Your task to perform on an android device: Go to CNN.com Image 0: 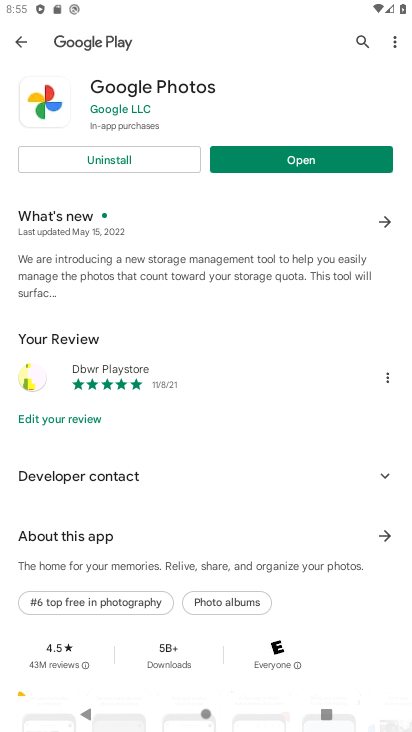
Step 0: press home button
Your task to perform on an android device: Go to CNN.com Image 1: 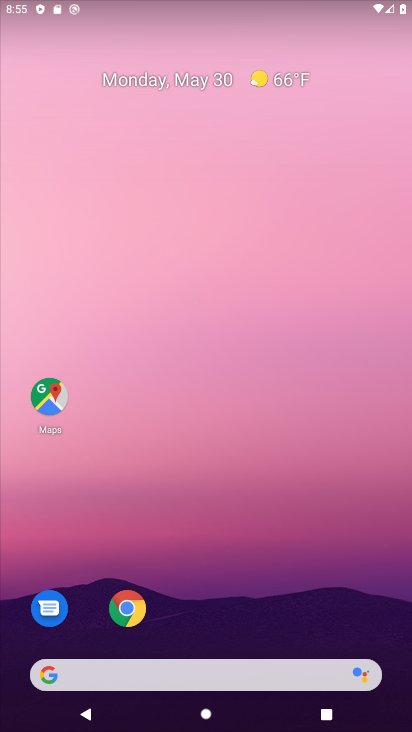
Step 1: click (123, 613)
Your task to perform on an android device: Go to CNN.com Image 2: 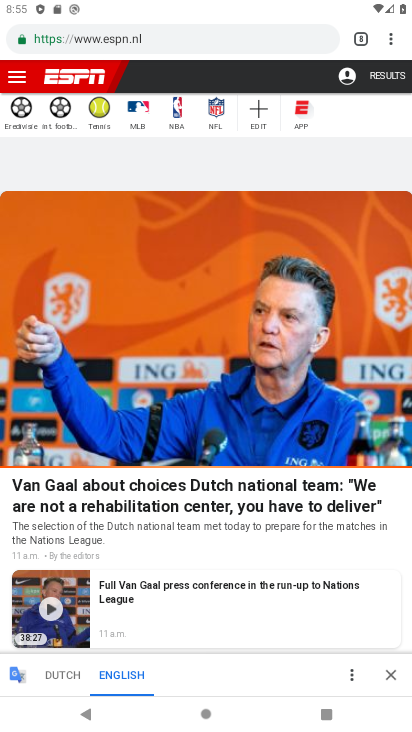
Step 2: click (392, 42)
Your task to perform on an android device: Go to CNN.com Image 3: 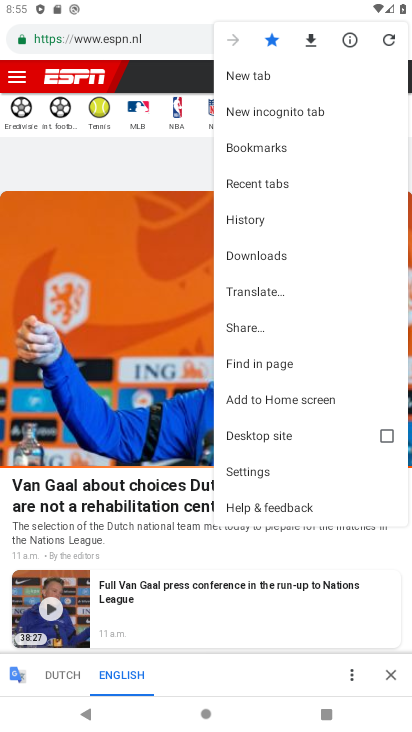
Step 3: click (255, 73)
Your task to perform on an android device: Go to CNN.com Image 4: 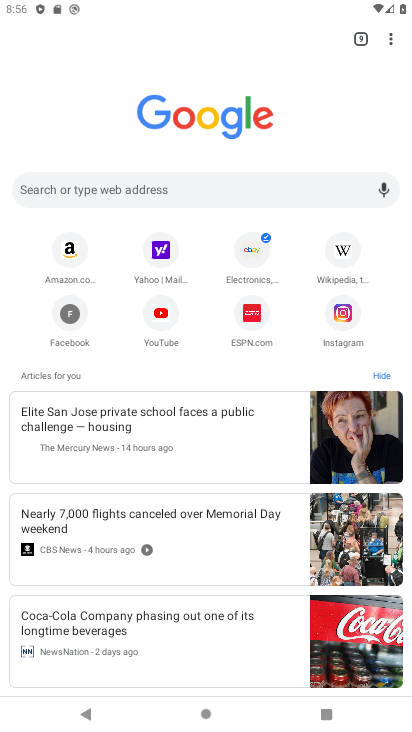
Step 4: click (206, 184)
Your task to perform on an android device: Go to CNN.com Image 5: 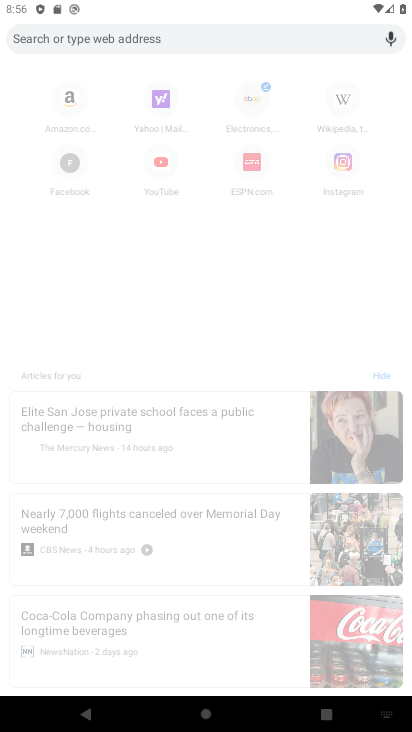
Step 5: type "CNN.com"
Your task to perform on an android device: Go to CNN.com Image 6: 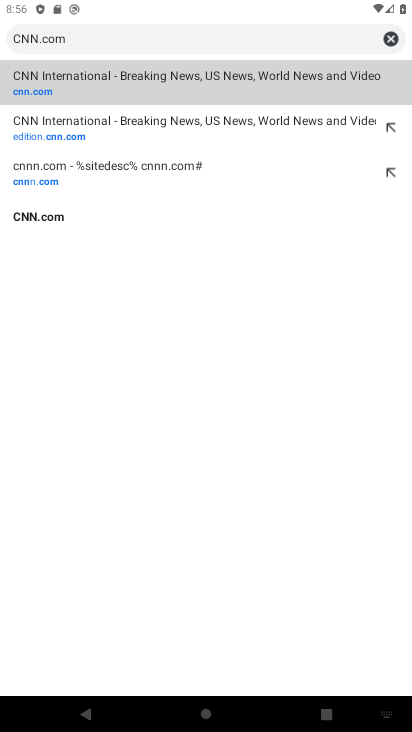
Step 6: type ""
Your task to perform on an android device: Go to CNN.com Image 7: 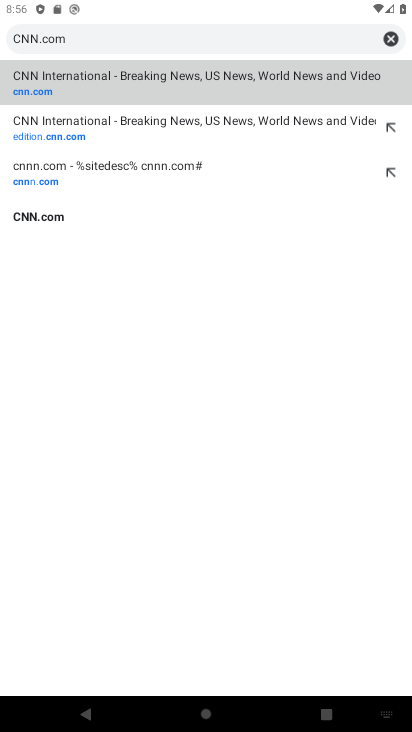
Step 7: click (33, 91)
Your task to perform on an android device: Go to CNN.com Image 8: 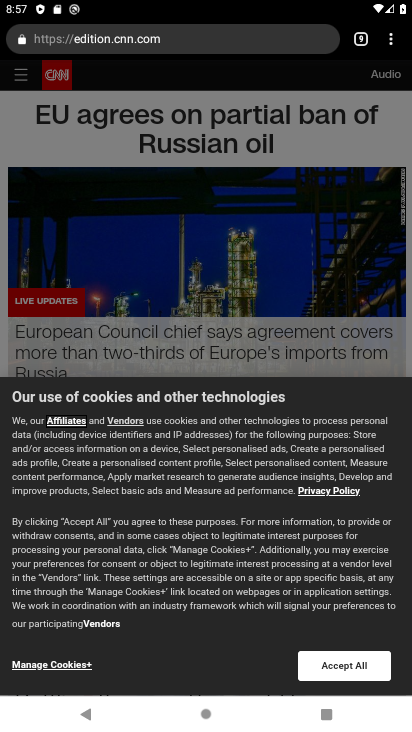
Step 8: task complete